Your task to perform on an android device: change the clock style Image 0: 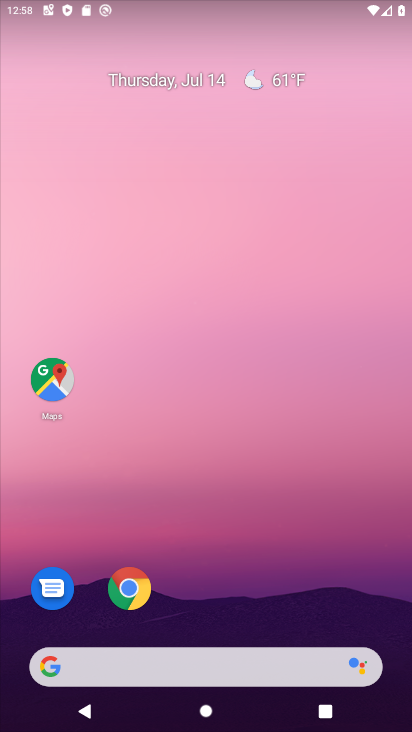
Step 0: drag from (263, 574) to (286, 257)
Your task to perform on an android device: change the clock style Image 1: 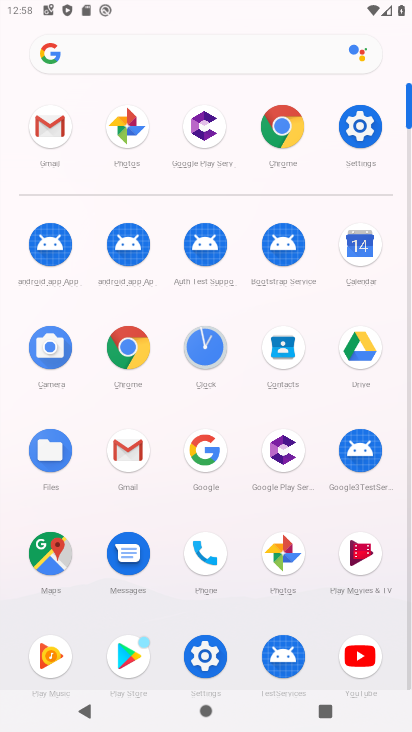
Step 1: click (204, 336)
Your task to perform on an android device: change the clock style Image 2: 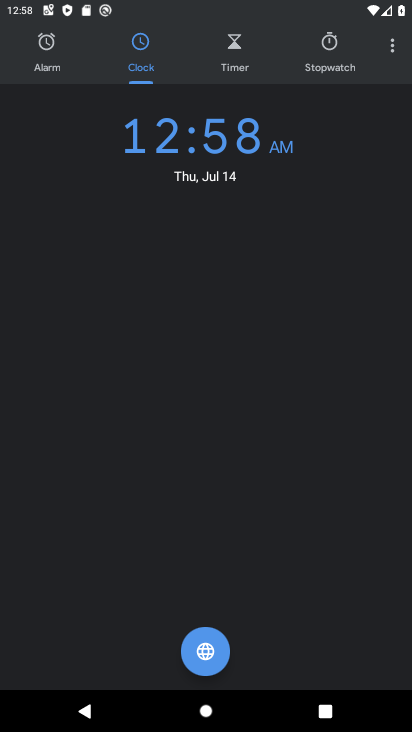
Step 2: click (380, 44)
Your task to perform on an android device: change the clock style Image 3: 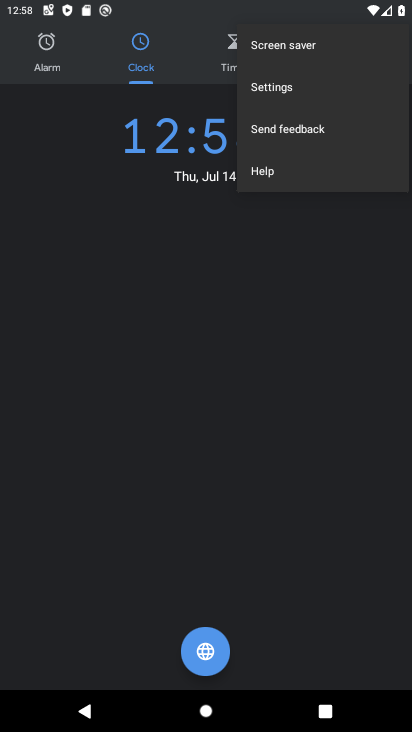
Step 3: click (317, 94)
Your task to perform on an android device: change the clock style Image 4: 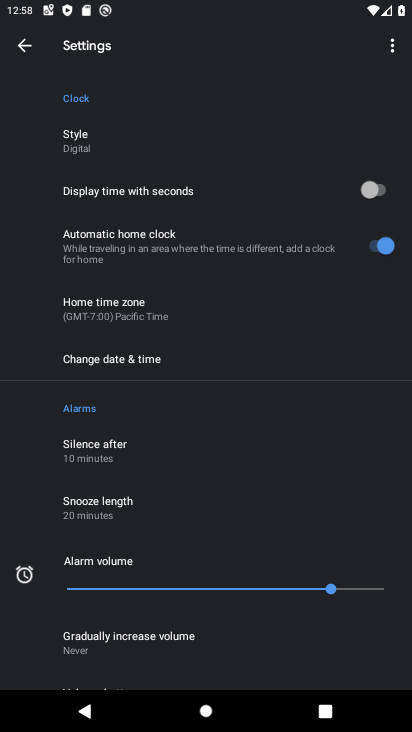
Step 4: click (101, 136)
Your task to perform on an android device: change the clock style Image 5: 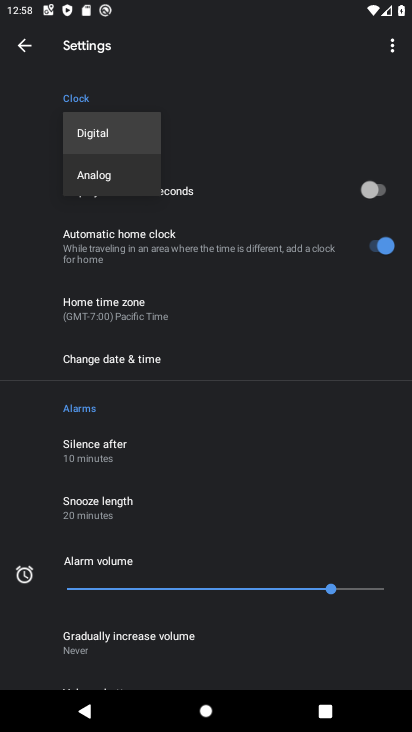
Step 5: click (104, 169)
Your task to perform on an android device: change the clock style Image 6: 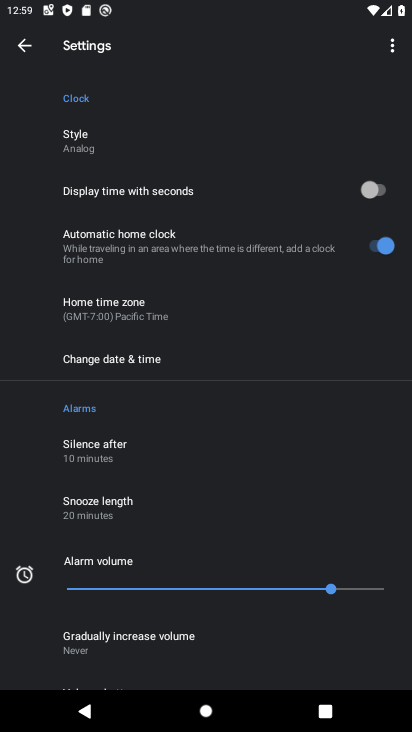
Step 6: task complete